Your task to perform on an android device: make emails show in primary in the gmail app Image 0: 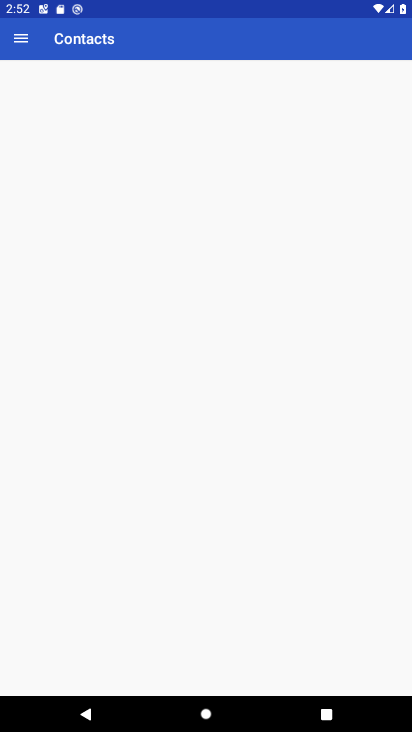
Step 0: drag from (188, 568) to (224, 181)
Your task to perform on an android device: make emails show in primary in the gmail app Image 1: 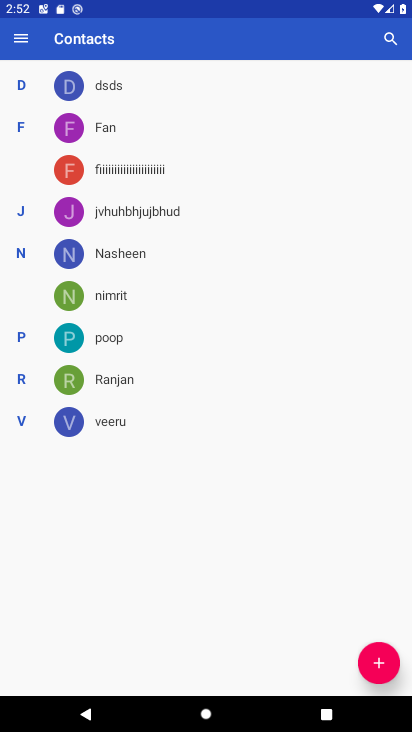
Step 1: press home button
Your task to perform on an android device: make emails show in primary in the gmail app Image 2: 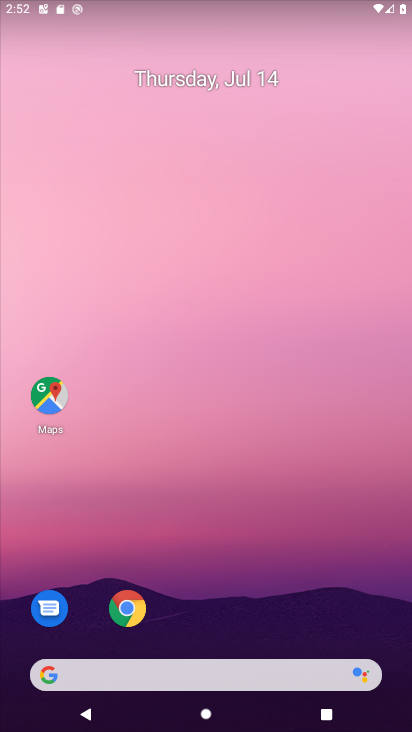
Step 2: drag from (202, 460) to (158, 63)
Your task to perform on an android device: make emails show in primary in the gmail app Image 3: 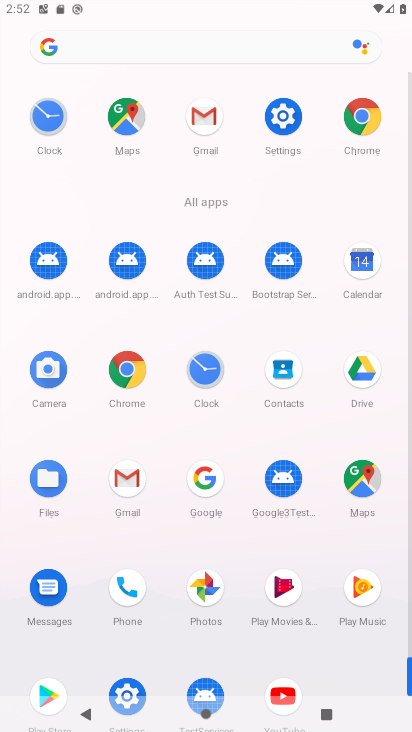
Step 3: click (210, 123)
Your task to perform on an android device: make emails show in primary in the gmail app Image 4: 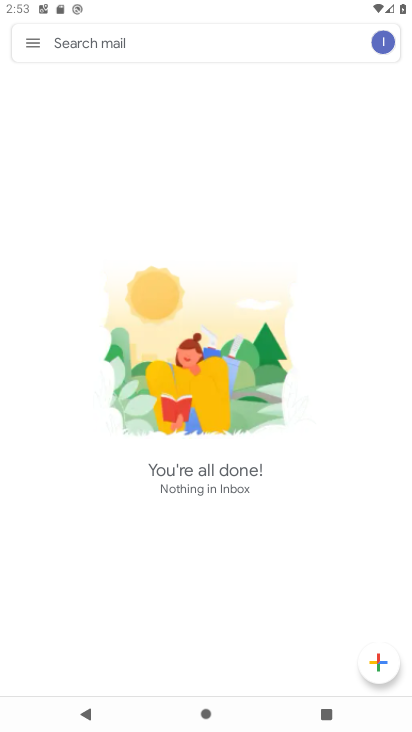
Step 4: click (30, 43)
Your task to perform on an android device: make emails show in primary in the gmail app Image 5: 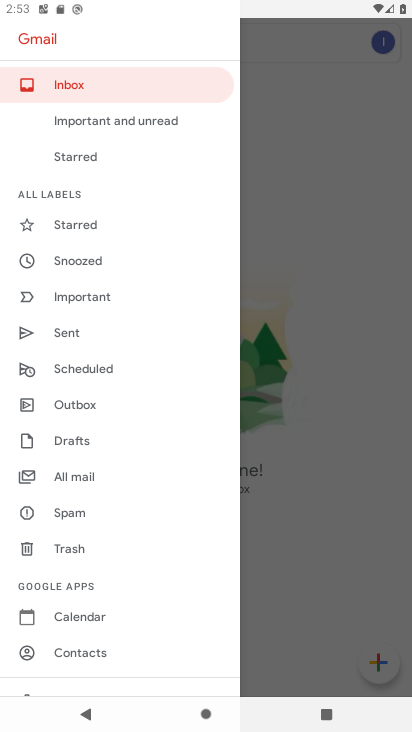
Step 5: task complete